Your task to perform on an android device: open app "Microsoft Outlook" Image 0: 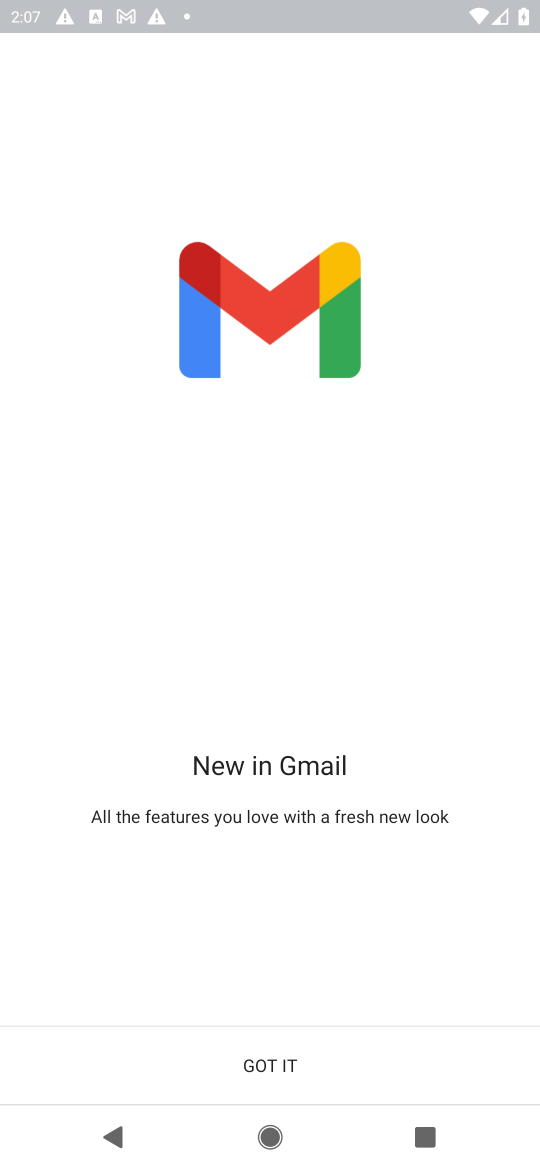
Step 0: press home button
Your task to perform on an android device: open app "Microsoft Outlook" Image 1: 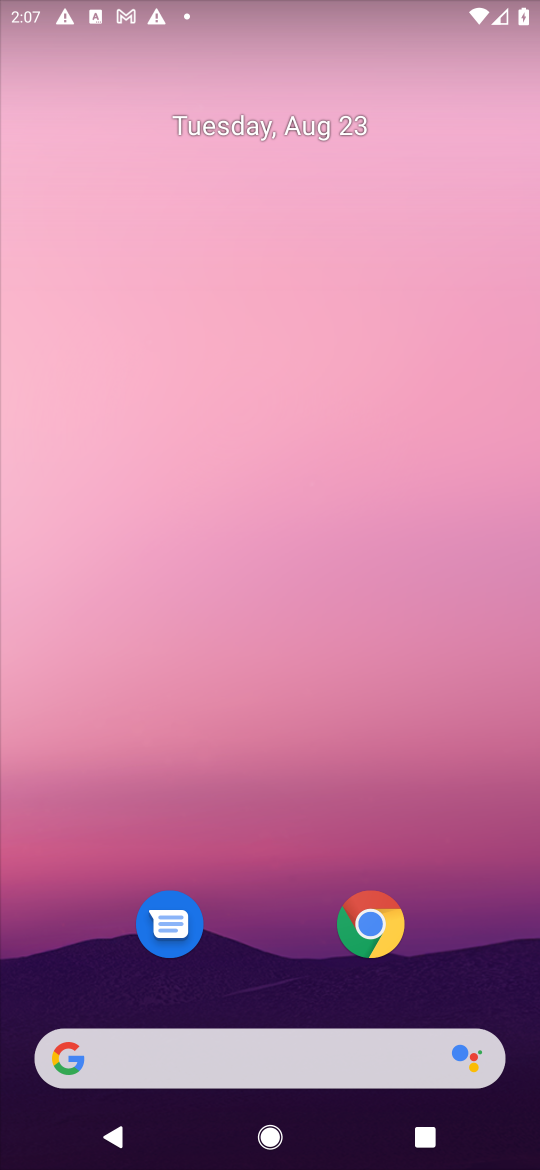
Step 1: drag from (452, 980) to (457, 120)
Your task to perform on an android device: open app "Microsoft Outlook" Image 2: 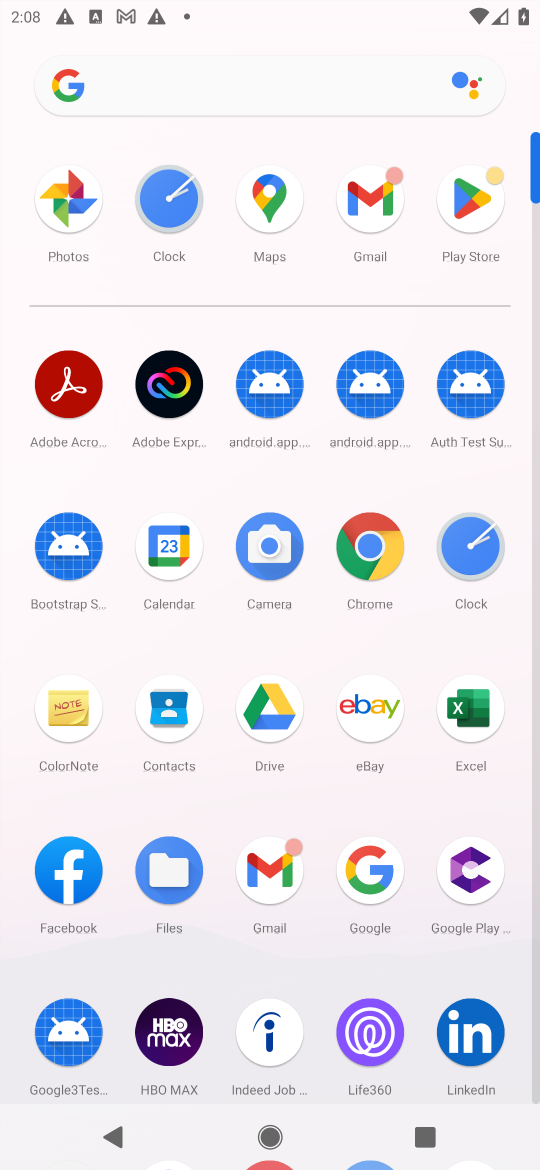
Step 2: click (472, 197)
Your task to perform on an android device: open app "Microsoft Outlook" Image 3: 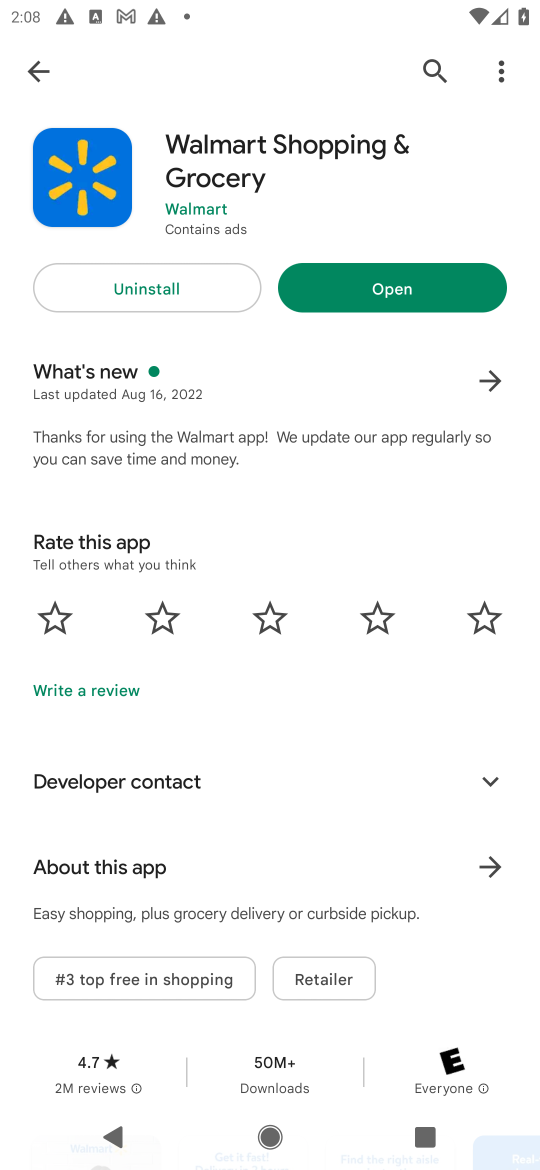
Step 3: press back button
Your task to perform on an android device: open app "Microsoft Outlook" Image 4: 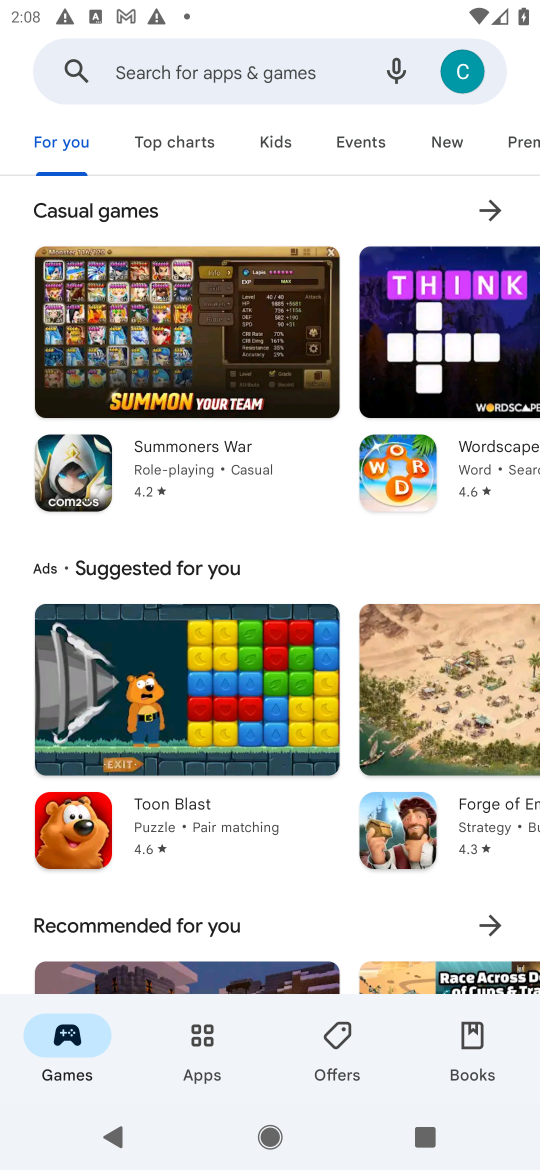
Step 4: click (169, 75)
Your task to perform on an android device: open app "Microsoft Outlook" Image 5: 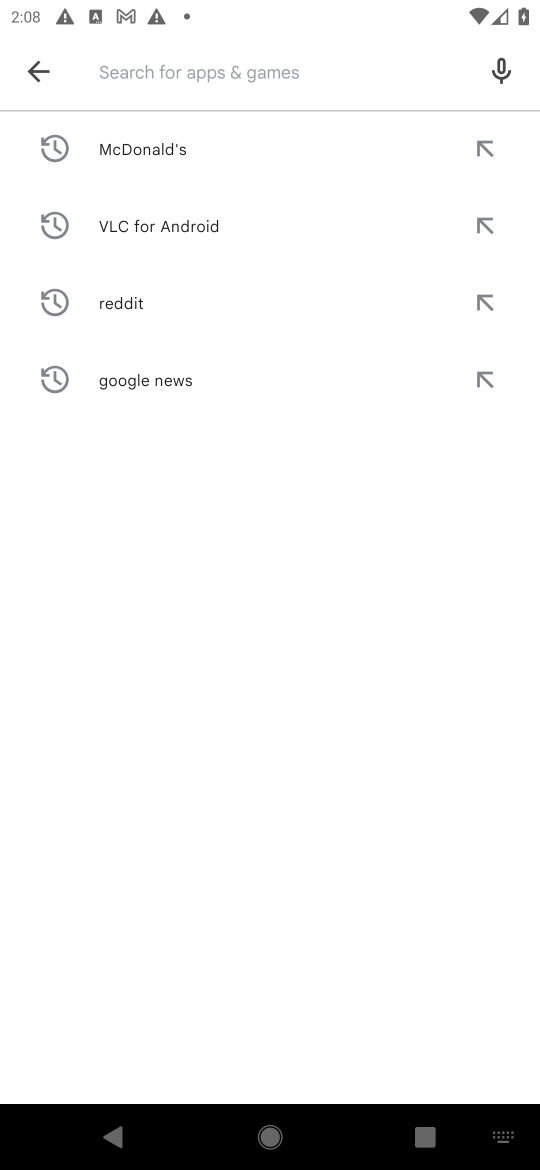
Step 5: press enter
Your task to perform on an android device: open app "Microsoft Outlook" Image 6: 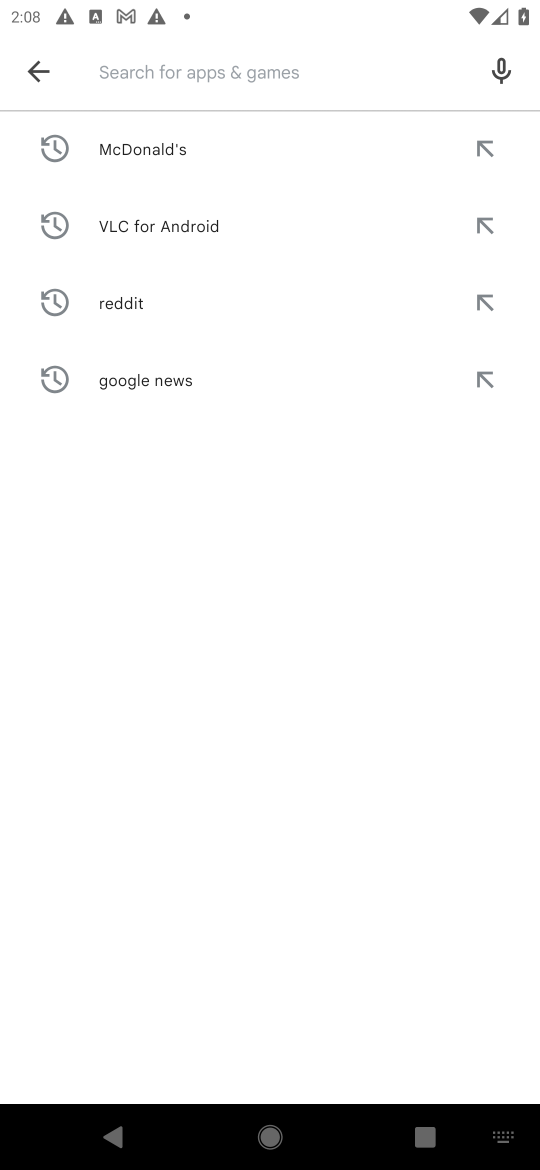
Step 6: type "Microsoft Outlook"
Your task to perform on an android device: open app "Microsoft Outlook" Image 7: 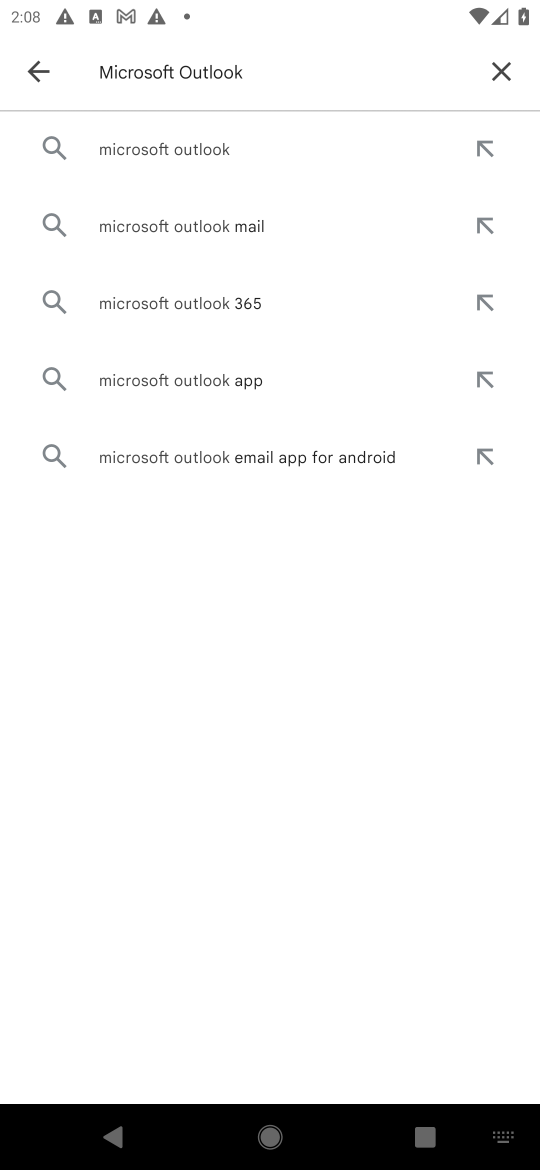
Step 7: click (232, 151)
Your task to perform on an android device: open app "Microsoft Outlook" Image 8: 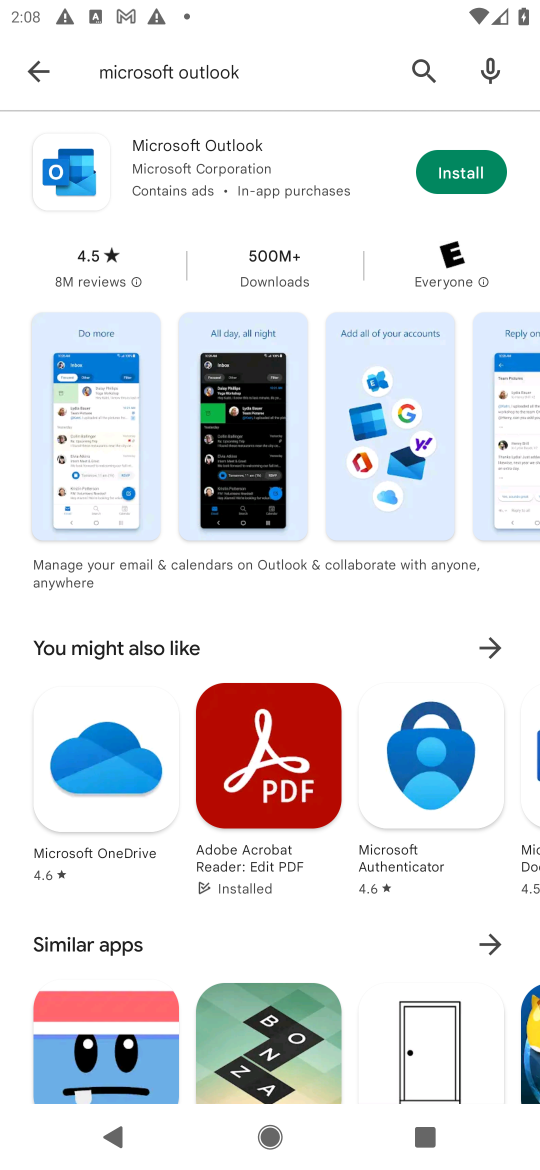
Step 8: task complete